Your task to perform on an android device: Go to network settings Image 0: 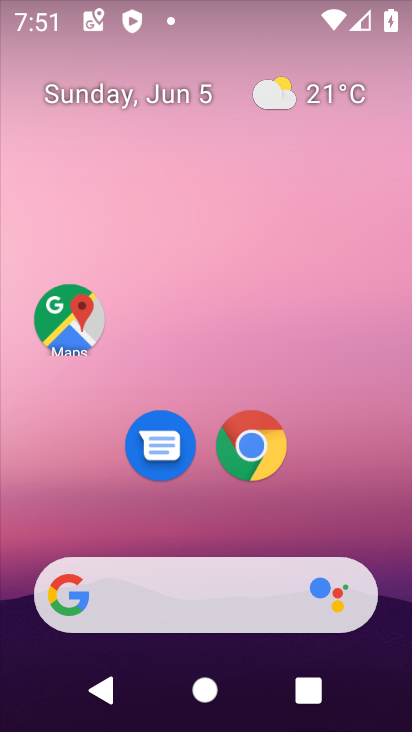
Step 0: drag from (345, 527) to (330, 115)
Your task to perform on an android device: Go to network settings Image 1: 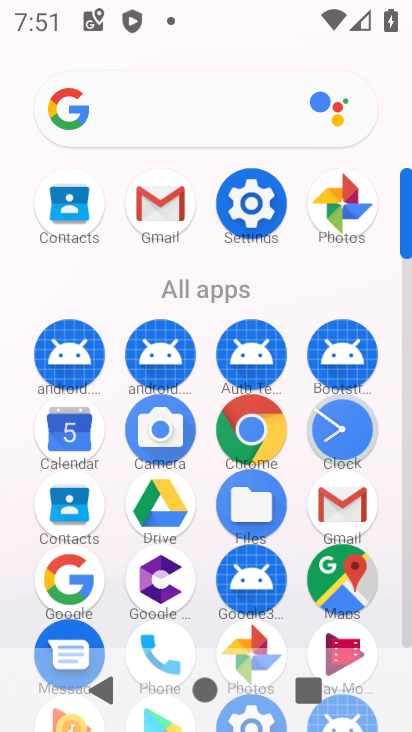
Step 1: click (266, 189)
Your task to perform on an android device: Go to network settings Image 2: 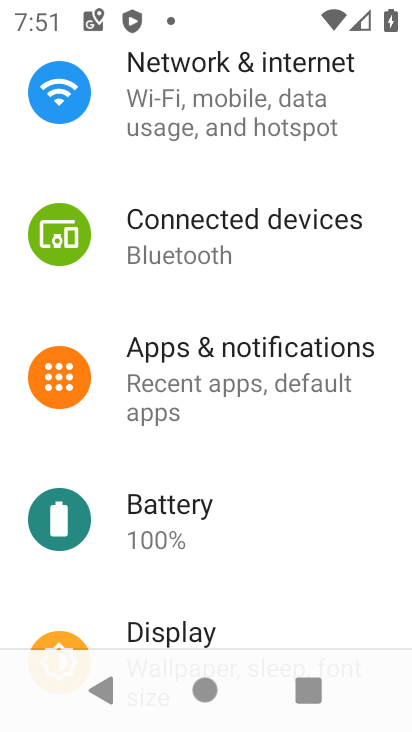
Step 2: click (286, 587)
Your task to perform on an android device: Go to network settings Image 3: 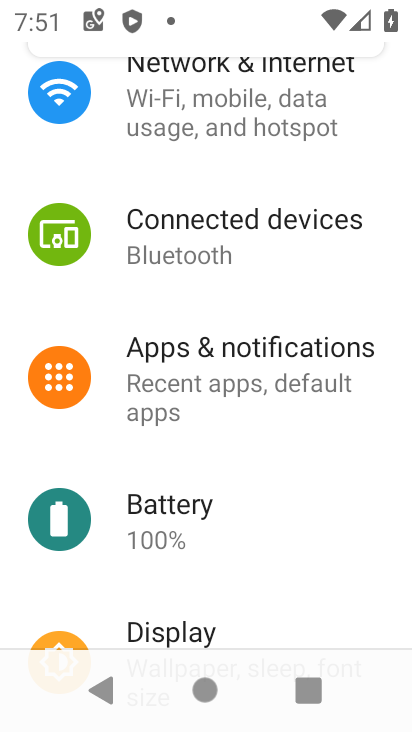
Step 3: click (190, 106)
Your task to perform on an android device: Go to network settings Image 4: 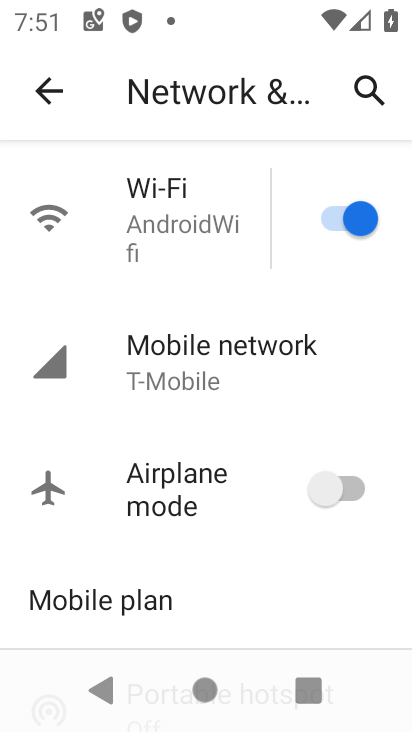
Step 4: click (222, 368)
Your task to perform on an android device: Go to network settings Image 5: 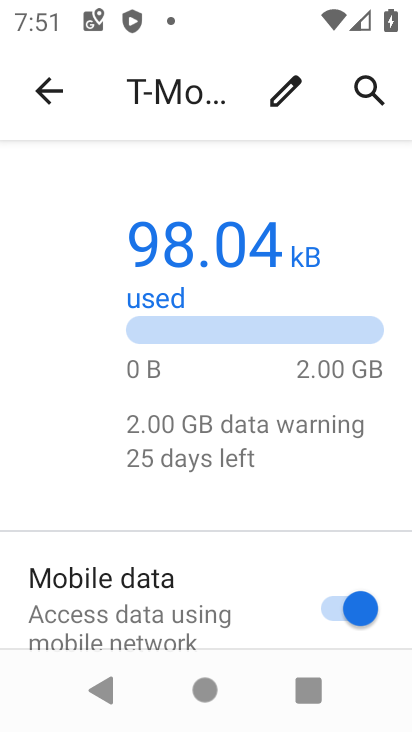
Step 5: task complete